Your task to perform on an android device: Go to settings Image 0: 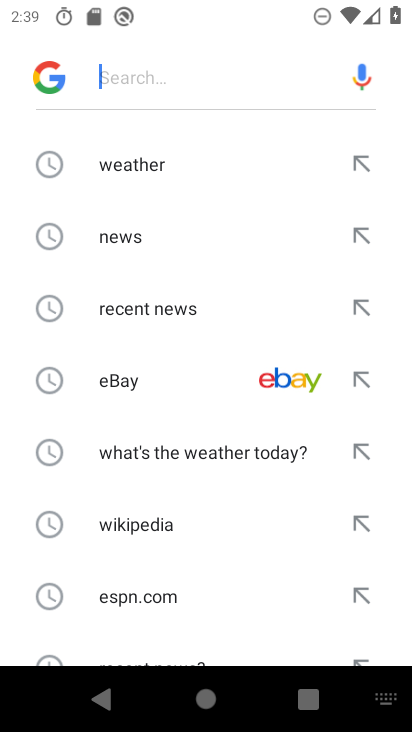
Step 0: press home button
Your task to perform on an android device: Go to settings Image 1: 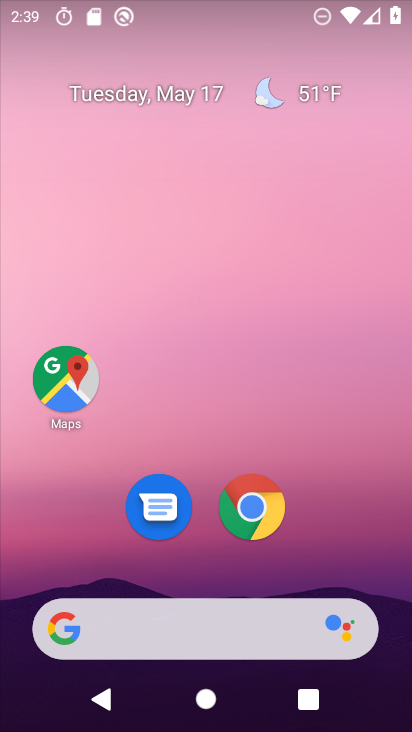
Step 1: drag from (219, 513) to (268, 147)
Your task to perform on an android device: Go to settings Image 2: 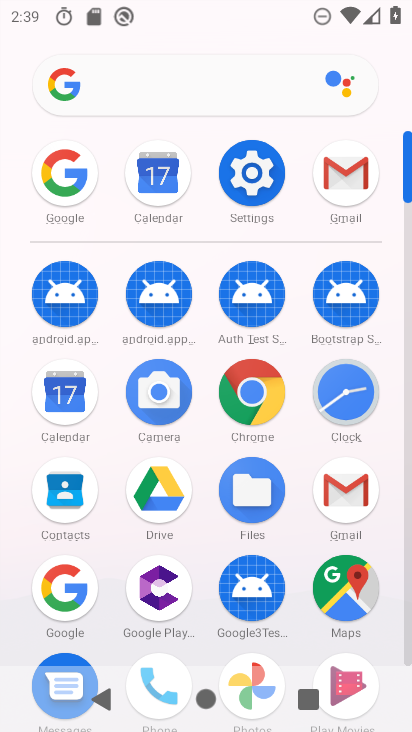
Step 2: click (251, 167)
Your task to perform on an android device: Go to settings Image 3: 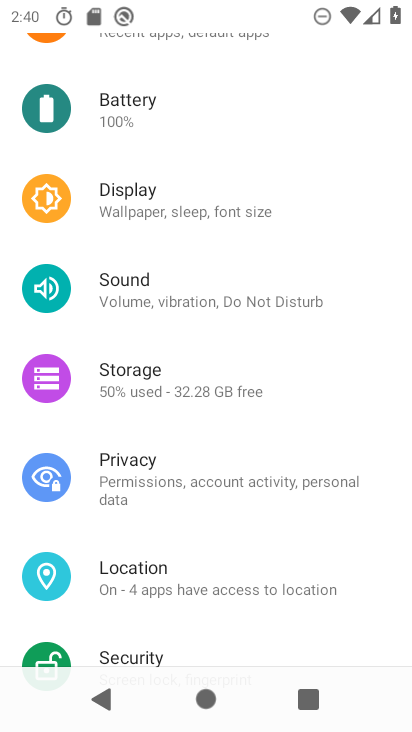
Step 3: task complete